Your task to perform on an android device: refresh tabs in the chrome app Image 0: 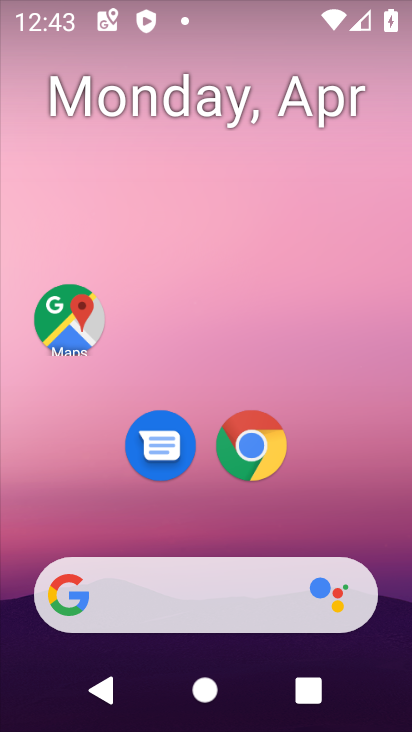
Step 0: drag from (367, 418) to (381, 73)
Your task to perform on an android device: refresh tabs in the chrome app Image 1: 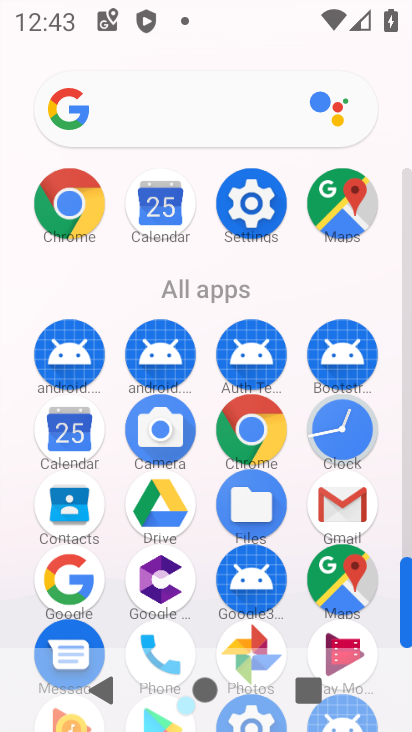
Step 1: click (253, 450)
Your task to perform on an android device: refresh tabs in the chrome app Image 2: 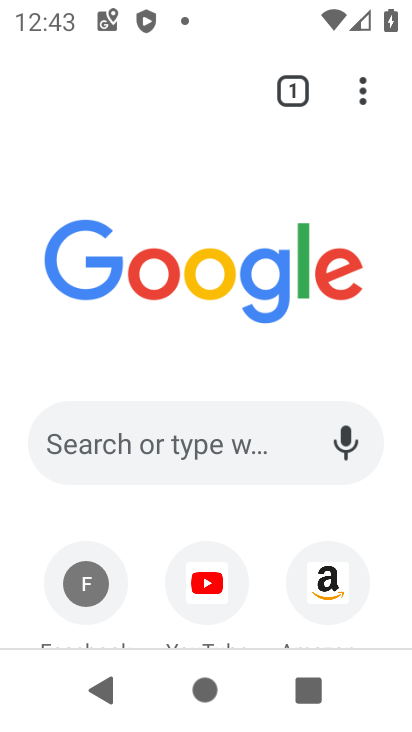
Step 2: click (364, 100)
Your task to perform on an android device: refresh tabs in the chrome app Image 3: 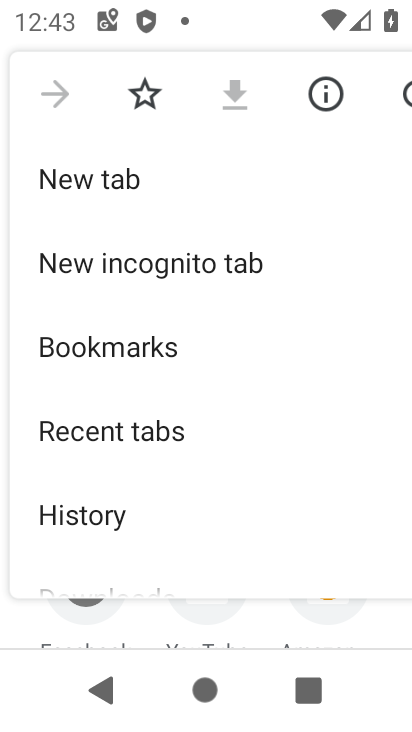
Step 3: click (405, 89)
Your task to perform on an android device: refresh tabs in the chrome app Image 4: 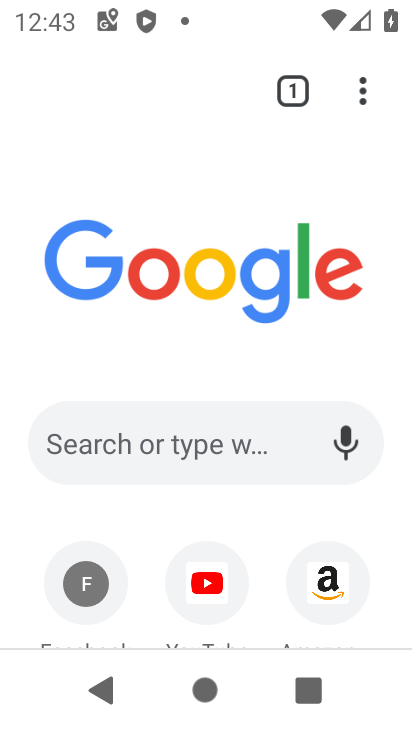
Step 4: task complete